Your task to perform on an android device: check google app version Image 0: 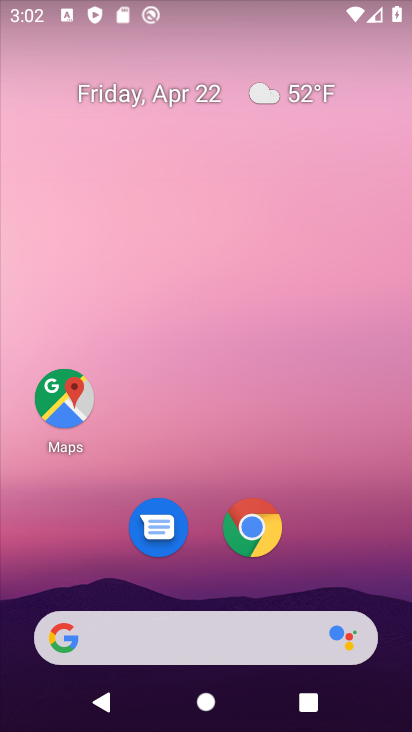
Step 0: drag from (330, 525) to (363, 39)
Your task to perform on an android device: check google app version Image 1: 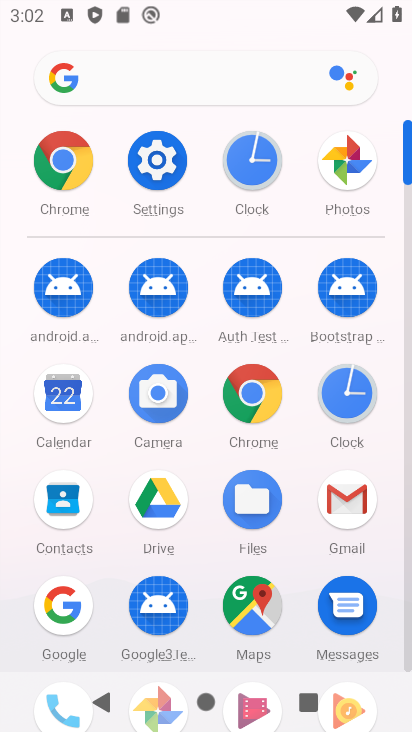
Step 1: click (159, 159)
Your task to perform on an android device: check google app version Image 2: 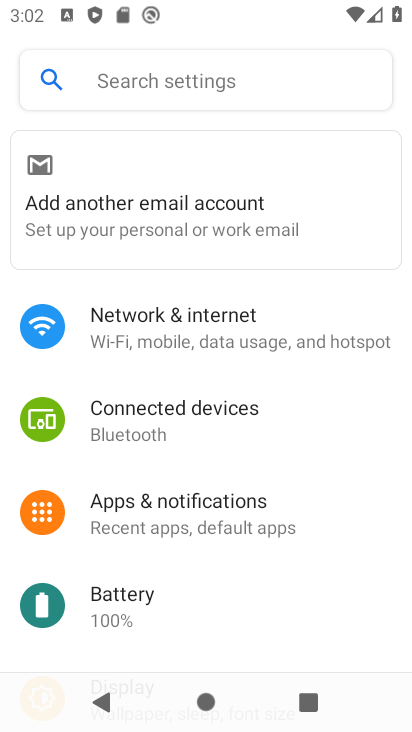
Step 2: drag from (200, 505) to (217, 159)
Your task to perform on an android device: check google app version Image 3: 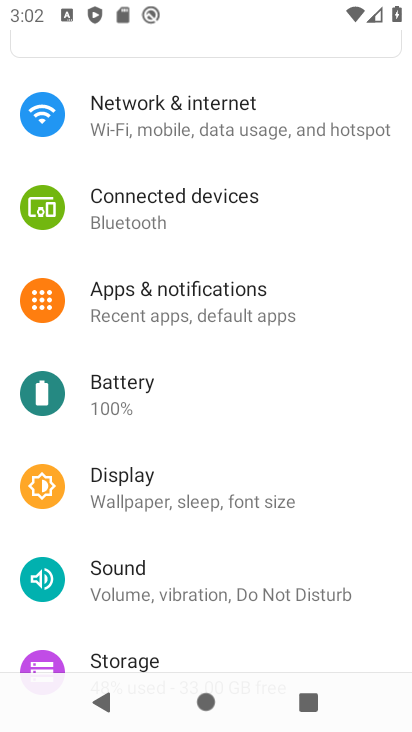
Step 3: drag from (201, 522) to (216, 171)
Your task to perform on an android device: check google app version Image 4: 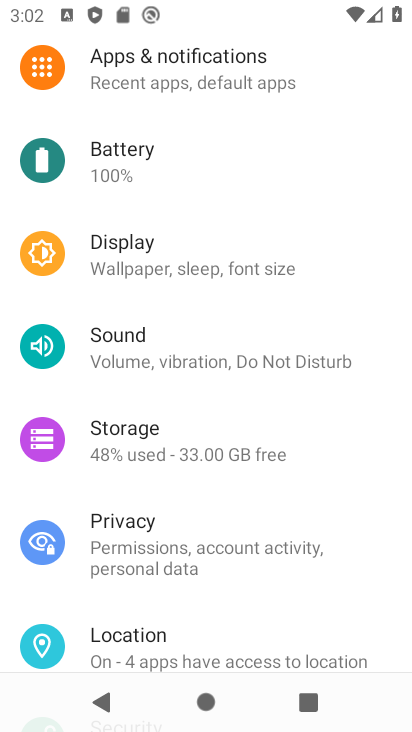
Step 4: drag from (176, 618) to (208, 145)
Your task to perform on an android device: check google app version Image 5: 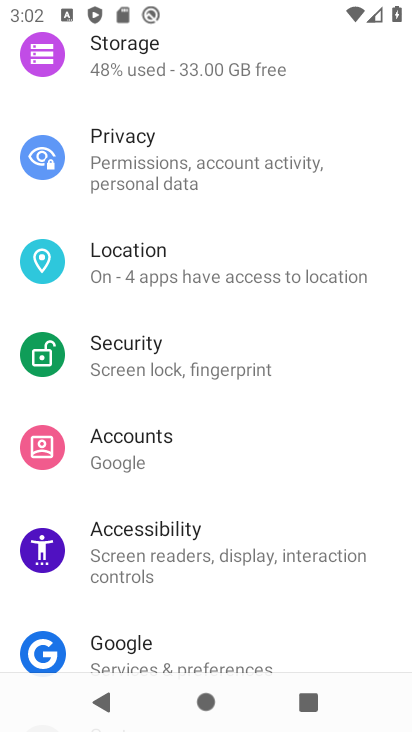
Step 5: drag from (165, 560) to (178, 83)
Your task to perform on an android device: check google app version Image 6: 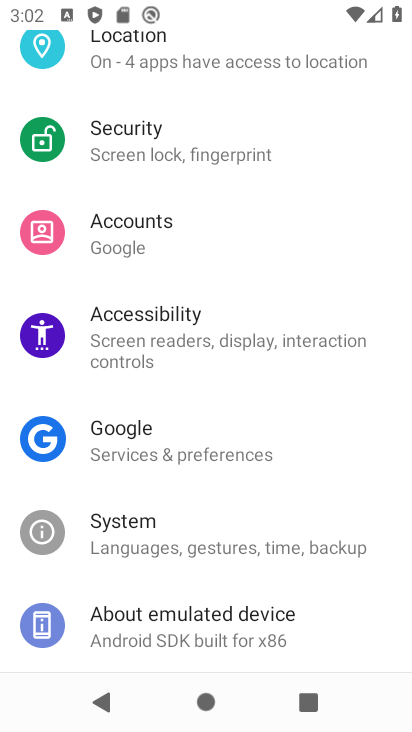
Step 6: drag from (144, 538) to (187, 144)
Your task to perform on an android device: check google app version Image 7: 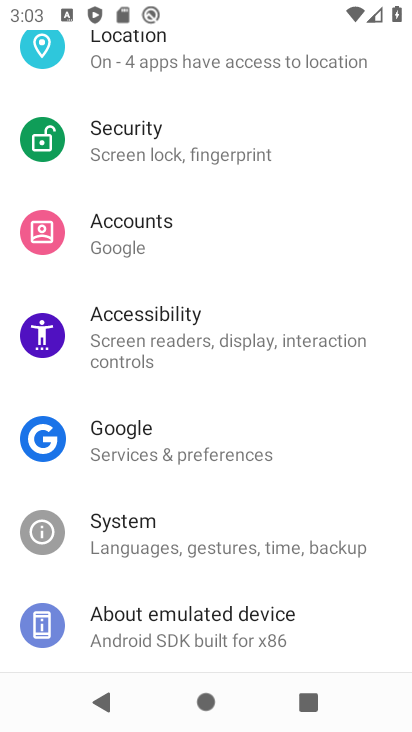
Step 7: click (193, 625)
Your task to perform on an android device: check google app version Image 8: 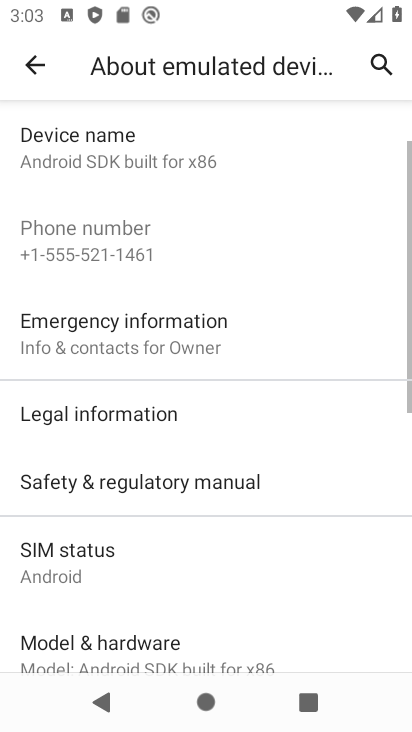
Step 8: drag from (177, 596) to (242, 194)
Your task to perform on an android device: check google app version Image 9: 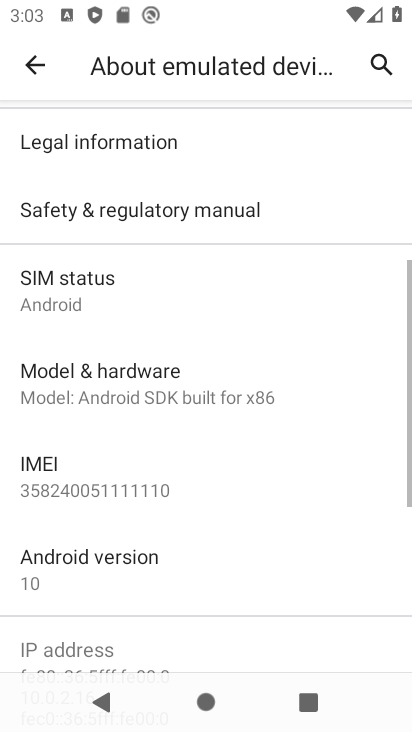
Step 9: drag from (148, 574) to (222, 180)
Your task to perform on an android device: check google app version Image 10: 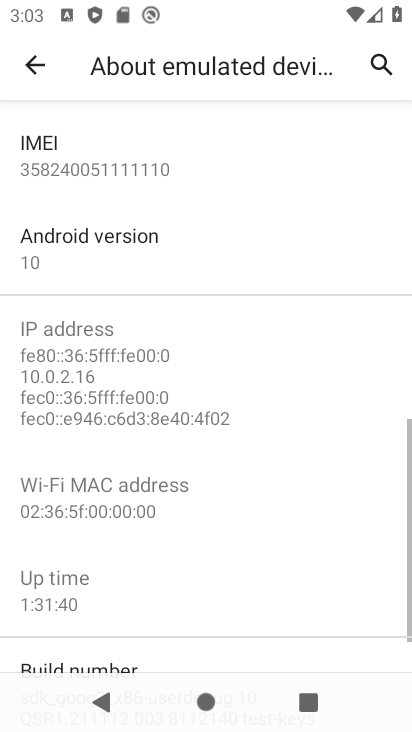
Step 10: click (93, 242)
Your task to perform on an android device: check google app version Image 11: 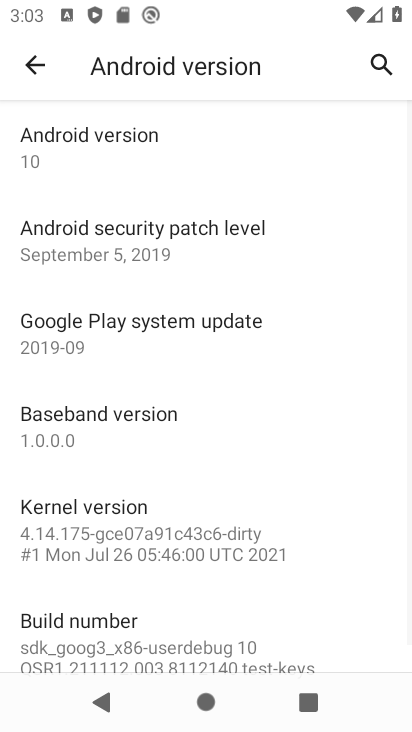
Step 11: click (68, 143)
Your task to perform on an android device: check google app version Image 12: 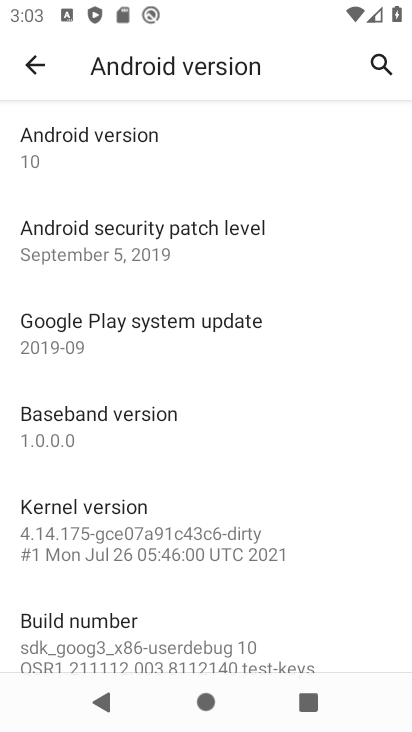
Step 12: task complete